Your task to perform on an android device: toggle data saver in the chrome app Image 0: 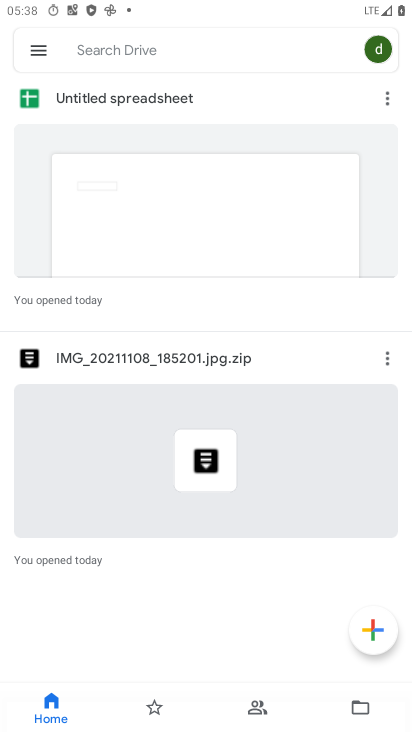
Step 0: press home button
Your task to perform on an android device: toggle data saver in the chrome app Image 1: 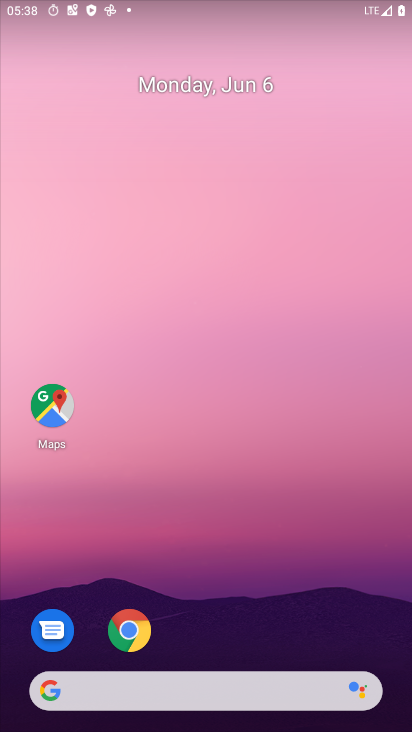
Step 1: drag from (247, 645) to (236, 178)
Your task to perform on an android device: toggle data saver in the chrome app Image 2: 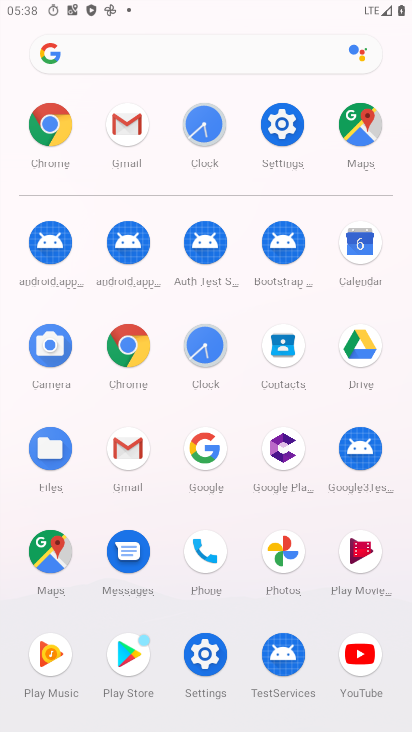
Step 2: click (117, 339)
Your task to perform on an android device: toggle data saver in the chrome app Image 3: 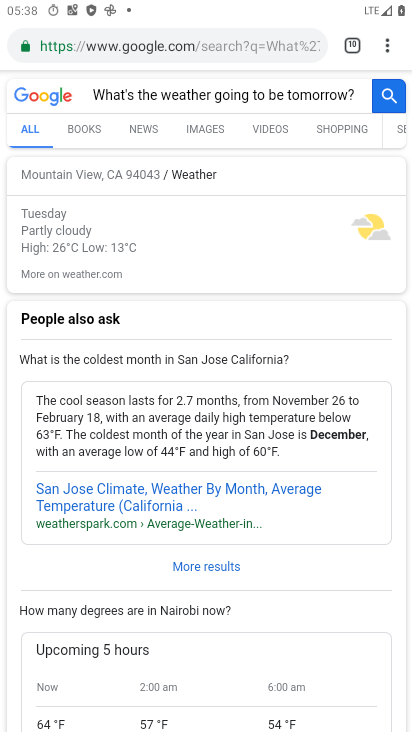
Step 3: drag from (390, 33) to (241, 491)
Your task to perform on an android device: toggle data saver in the chrome app Image 4: 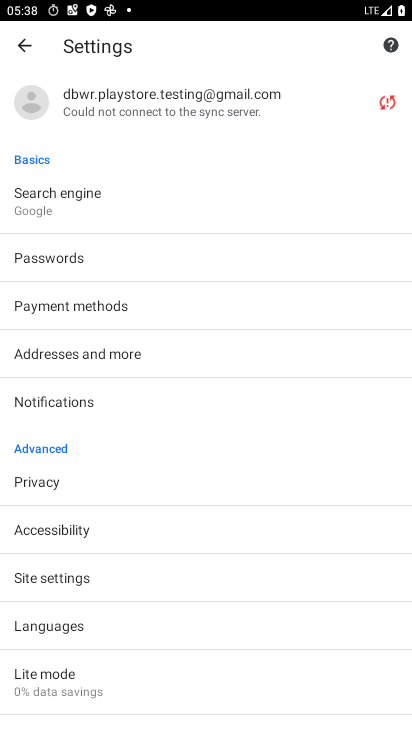
Step 4: click (42, 679)
Your task to perform on an android device: toggle data saver in the chrome app Image 5: 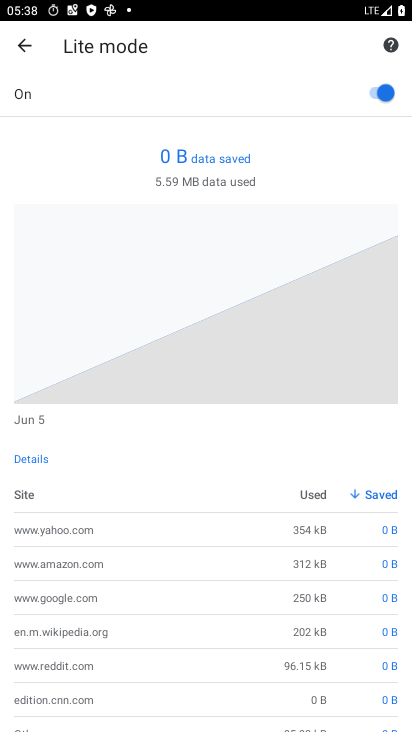
Step 5: click (381, 94)
Your task to perform on an android device: toggle data saver in the chrome app Image 6: 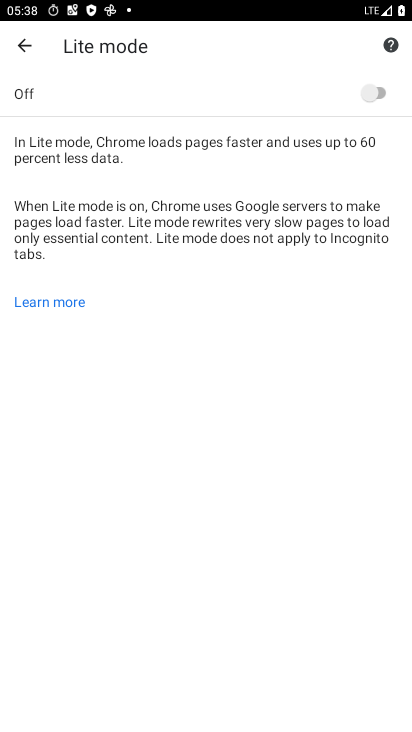
Step 6: task complete